Your task to perform on an android device: delete location history Image 0: 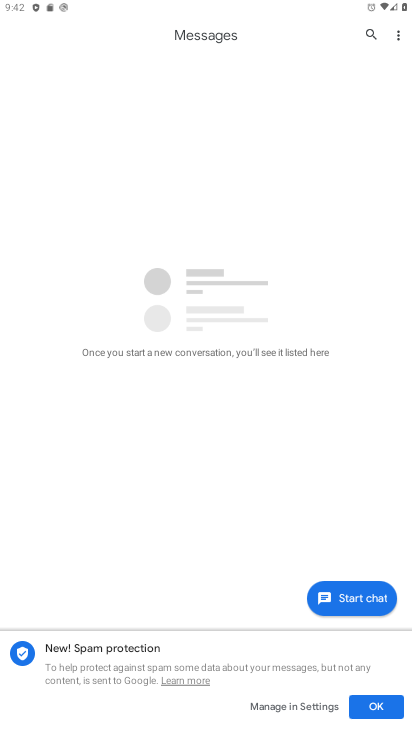
Step 0: press home button
Your task to perform on an android device: delete location history Image 1: 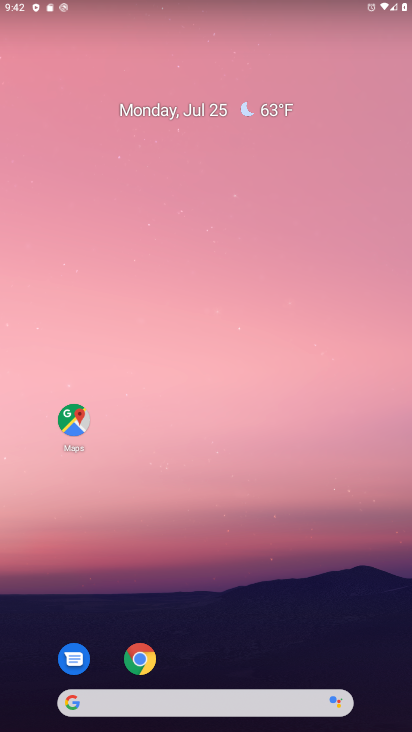
Step 1: drag from (203, 731) to (202, 214)
Your task to perform on an android device: delete location history Image 2: 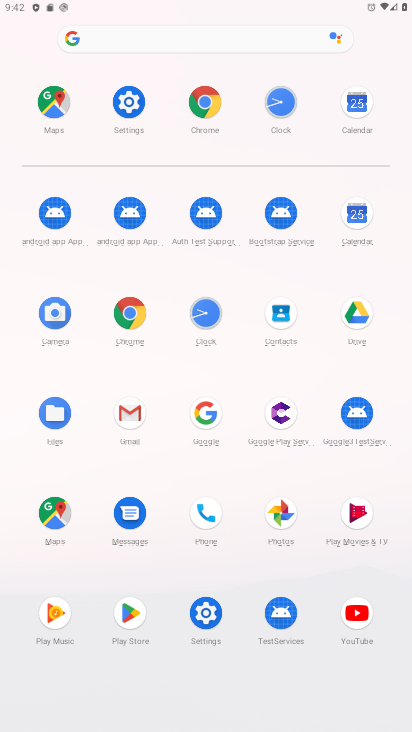
Step 2: click (56, 504)
Your task to perform on an android device: delete location history Image 3: 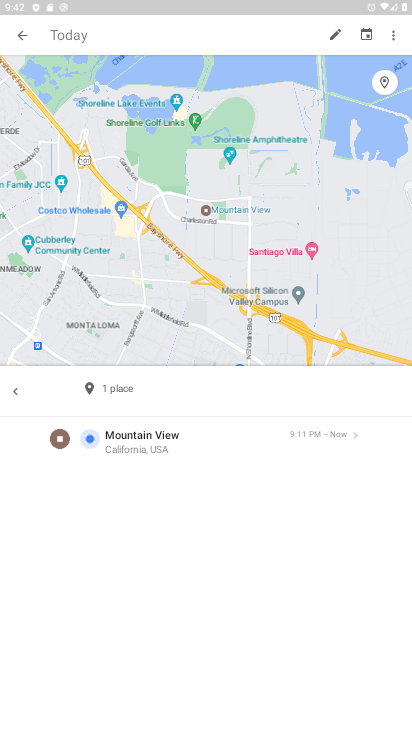
Step 3: click (20, 30)
Your task to perform on an android device: delete location history Image 4: 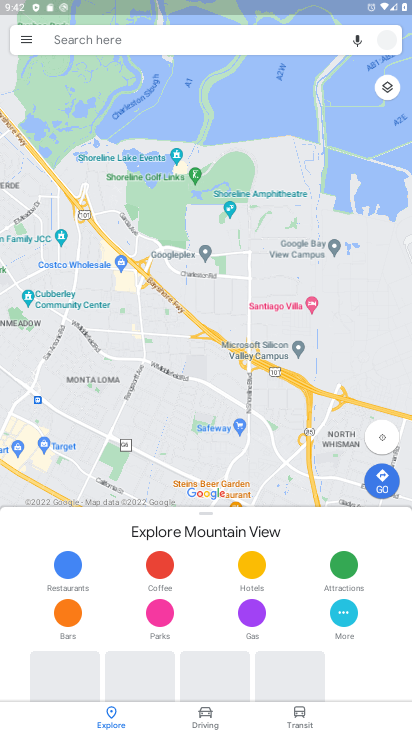
Step 4: click (18, 36)
Your task to perform on an android device: delete location history Image 5: 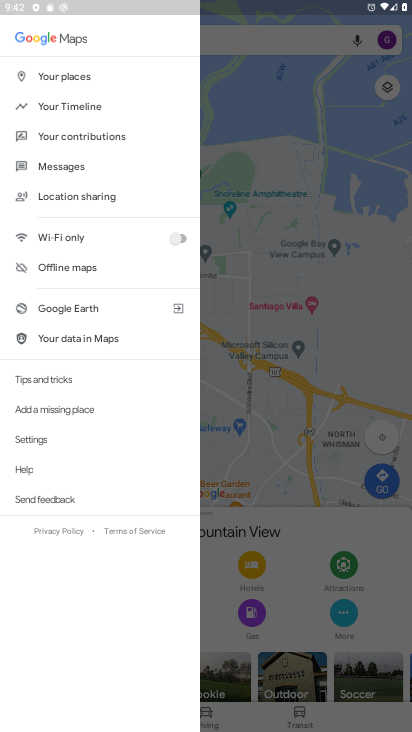
Step 5: click (68, 105)
Your task to perform on an android device: delete location history Image 6: 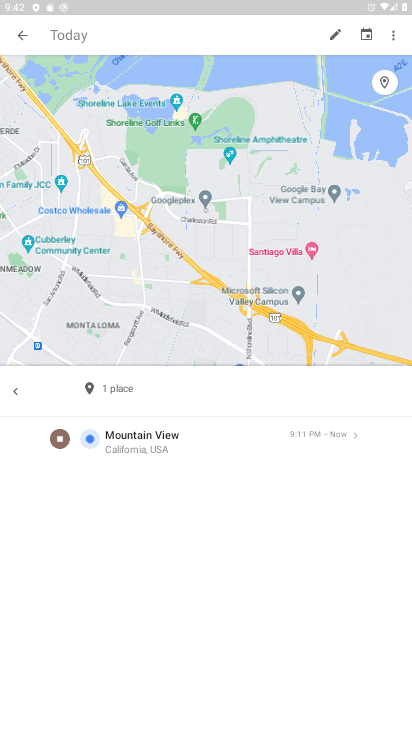
Step 6: click (395, 39)
Your task to perform on an android device: delete location history Image 7: 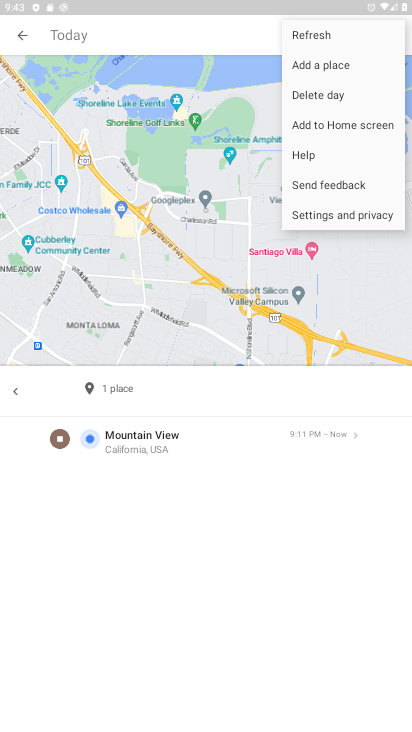
Step 7: click (341, 216)
Your task to perform on an android device: delete location history Image 8: 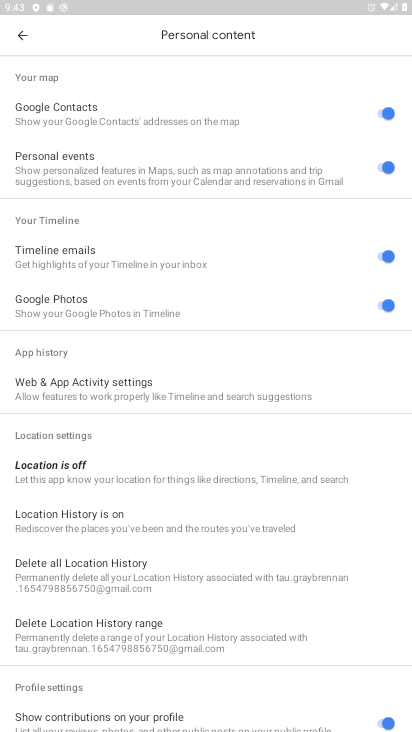
Step 8: click (90, 571)
Your task to perform on an android device: delete location history Image 9: 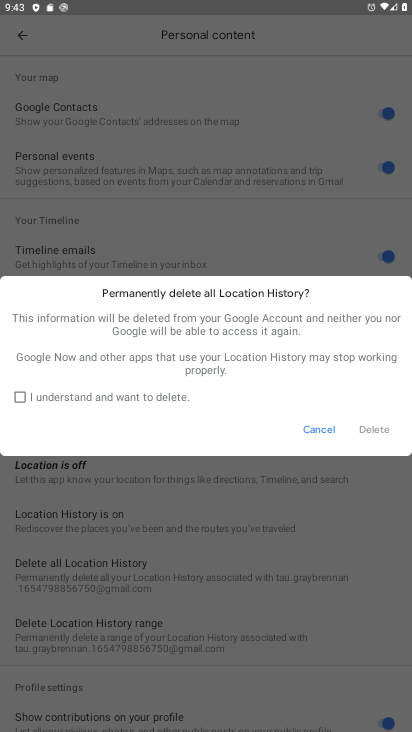
Step 9: click (20, 394)
Your task to perform on an android device: delete location history Image 10: 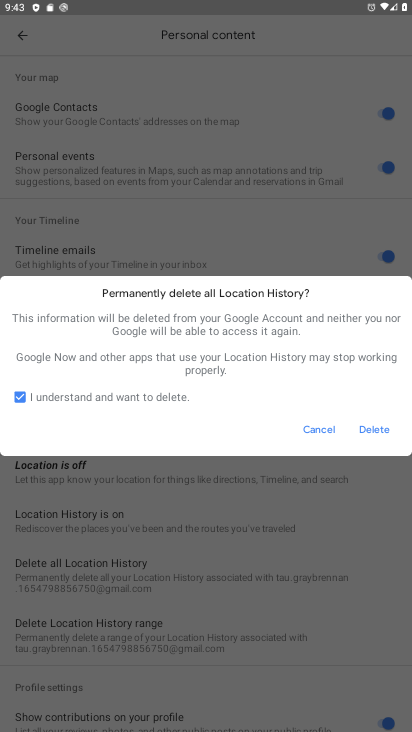
Step 10: click (371, 427)
Your task to perform on an android device: delete location history Image 11: 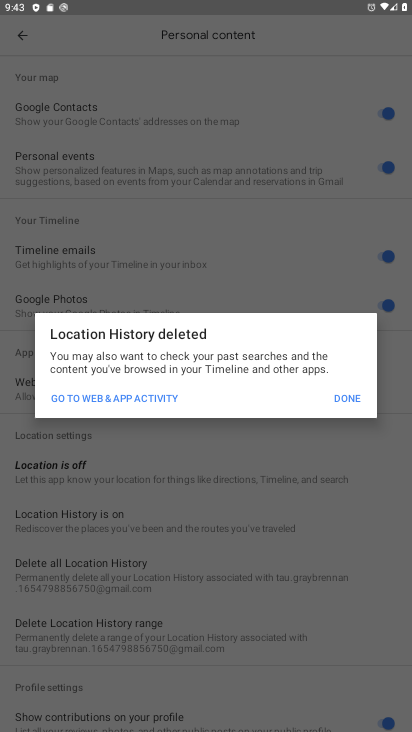
Step 11: click (348, 391)
Your task to perform on an android device: delete location history Image 12: 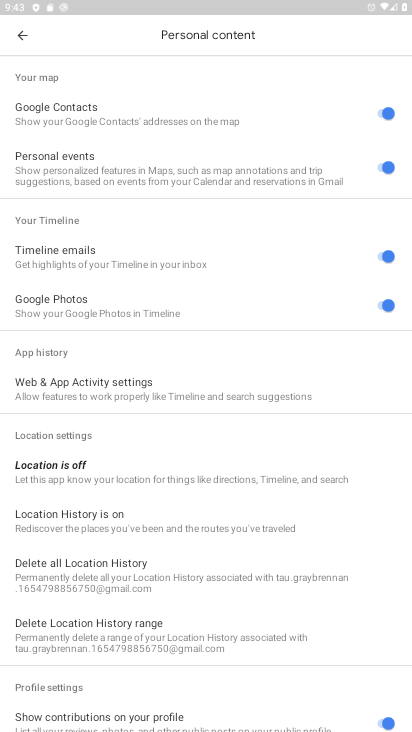
Step 12: task complete